Your task to perform on an android device: Turn off the flashlight Image 0: 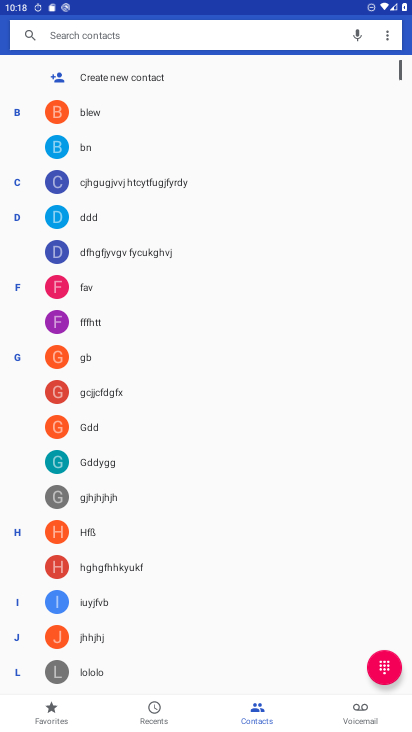
Step 0: press home button
Your task to perform on an android device: Turn off the flashlight Image 1: 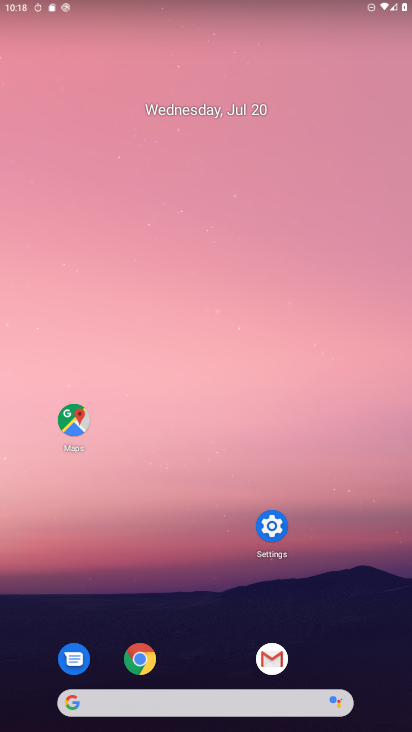
Step 1: click (282, 527)
Your task to perform on an android device: Turn off the flashlight Image 2: 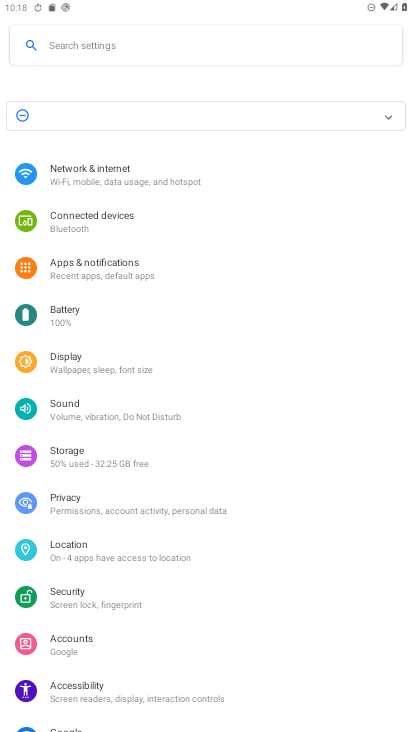
Step 2: click (98, 44)
Your task to perform on an android device: Turn off the flashlight Image 3: 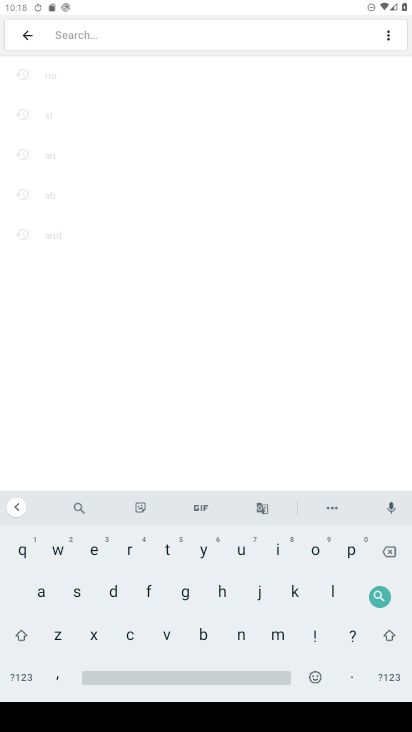
Step 3: click (141, 595)
Your task to perform on an android device: Turn off the flashlight Image 4: 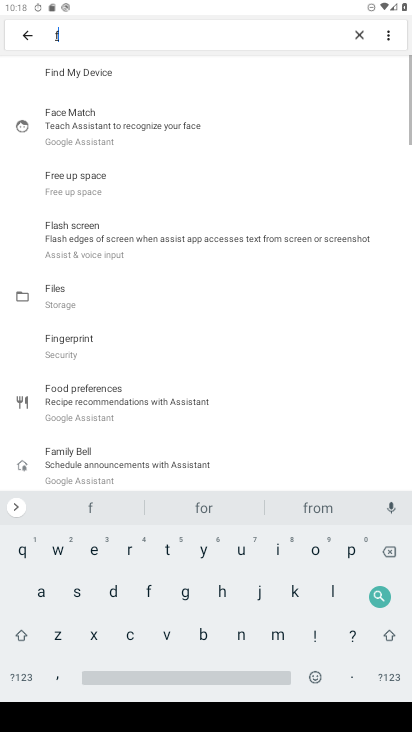
Step 4: click (329, 592)
Your task to perform on an android device: Turn off the flashlight Image 5: 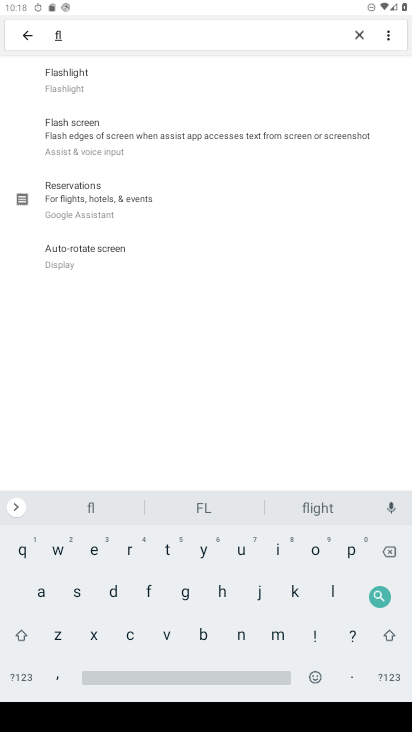
Step 5: click (86, 83)
Your task to perform on an android device: Turn off the flashlight Image 6: 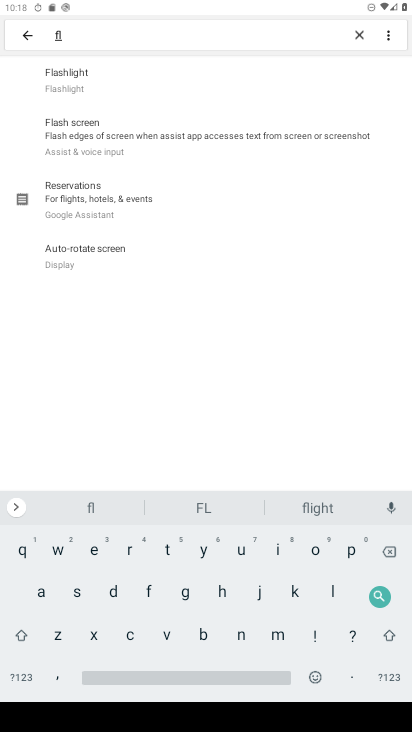
Step 6: click (84, 84)
Your task to perform on an android device: Turn off the flashlight Image 7: 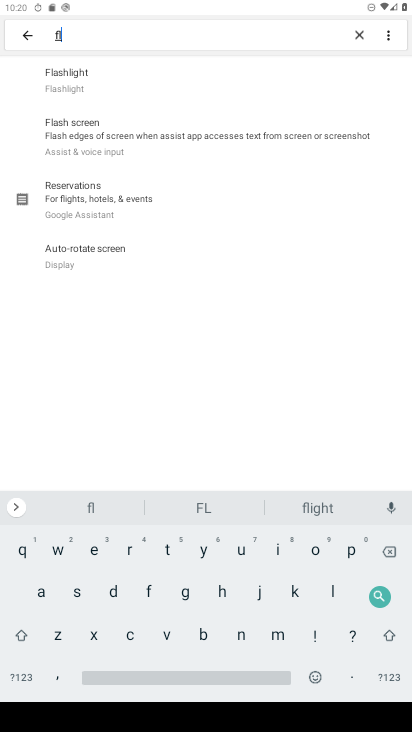
Step 7: task complete